Your task to perform on an android device: Go to settings Image 0: 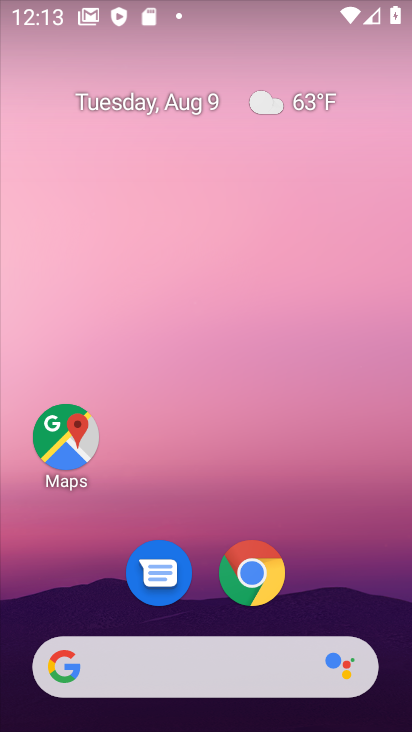
Step 0: drag from (184, 644) to (214, 102)
Your task to perform on an android device: Go to settings Image 1: 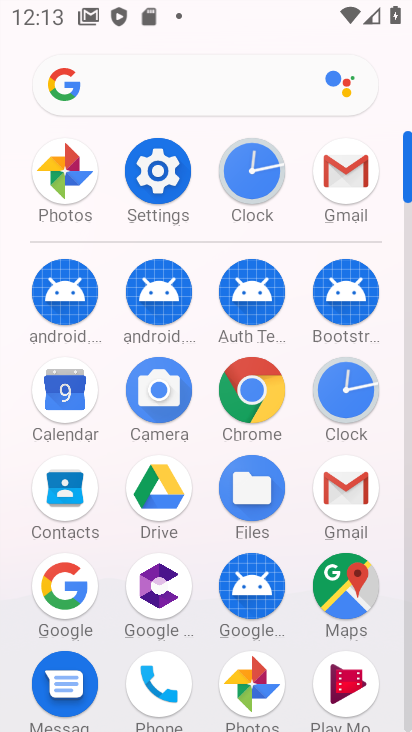
Step 1: click (153, 180)
Your task to perform on an android device: Go to settings Image 2: 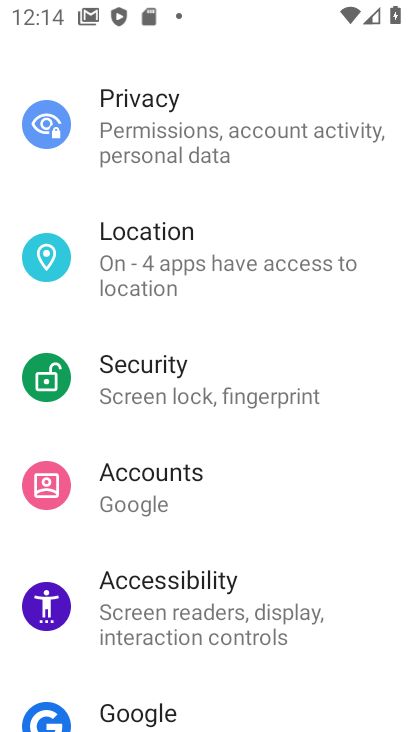
Step 2: task complete